Your task to perform on an android device: What's the weather today? Image 0: 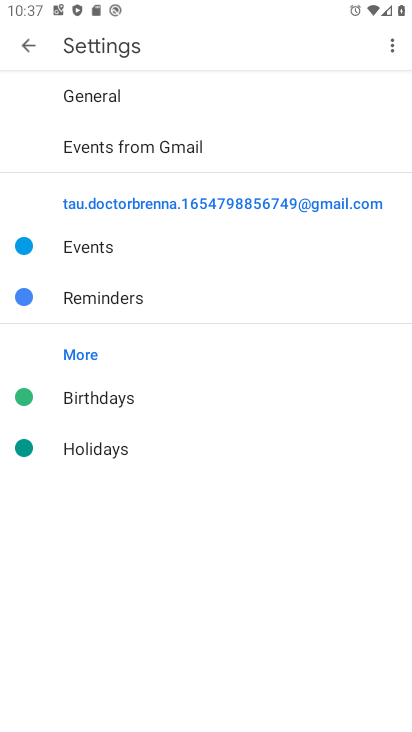
Step 0: press home button
Your task to perform on an android device: What's the weather today? Image 1: 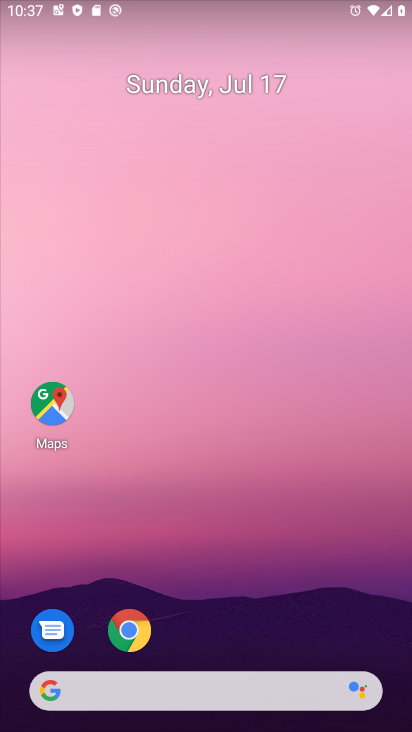
Step 1: drag from (331, 608) to (339, 84)
Your task to perform on an android device: What's the weather today? Image 2: 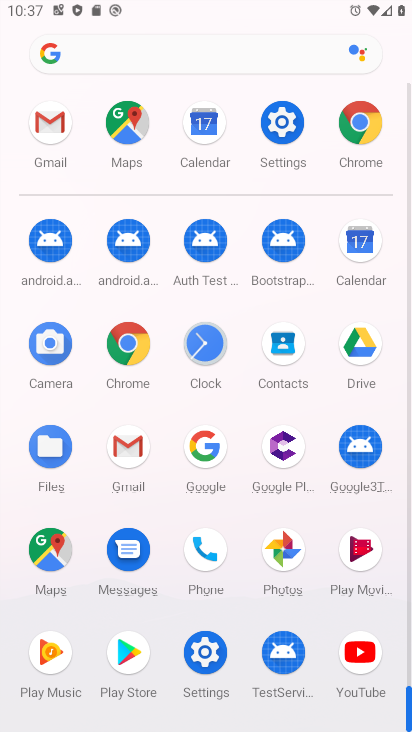
Step 2: click (225, 50)
Your task to perform on an android device: What's the weather today? Image 3: 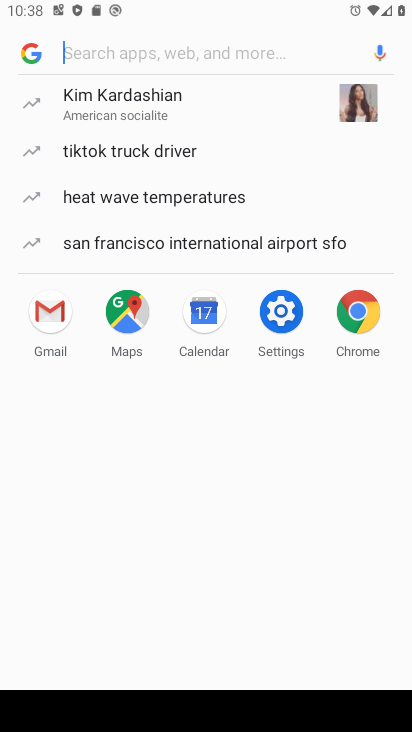
Step 3: type "weather"
Your task to perform on an android device: What's the weather today? Image 4: 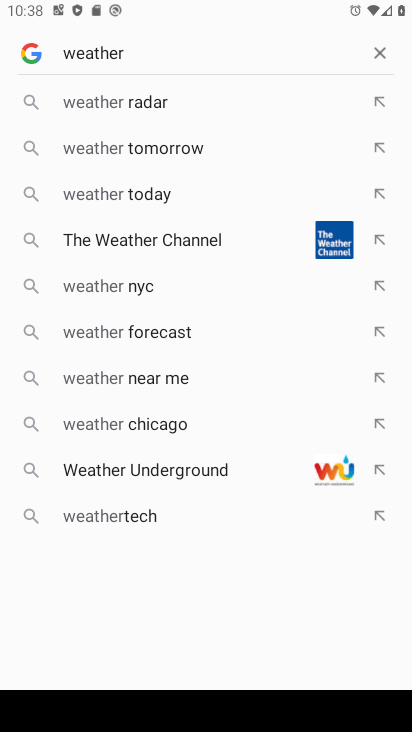
Step 4: click (145, 196)
Your task to perform on an android device: What's the weather today? Image 5: 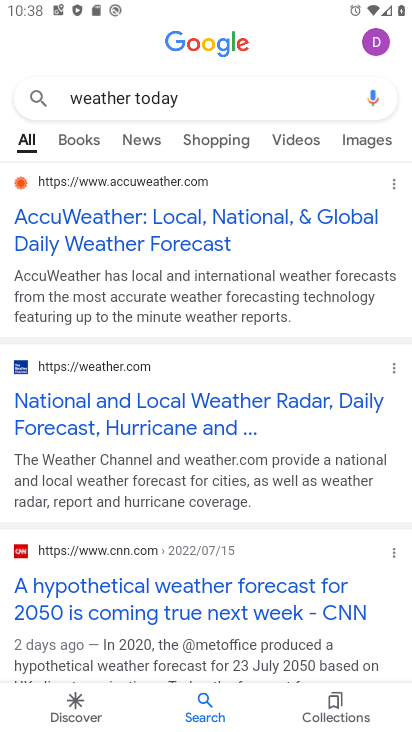
Step 5: task complete